Your task to perform on an android device: Clear the cart on ebay. Add usb-c to usb-b to the cart on ebay, then select checkout. Image 0: 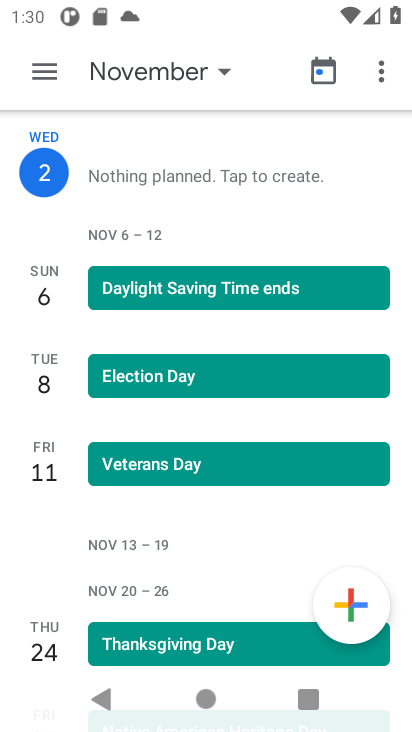
Step 0: press home button
Your task to perform on an android device: Clear the cart on ebay. Add usb-c to usb-b to the cart on ebay, then select checkout. Image 1: 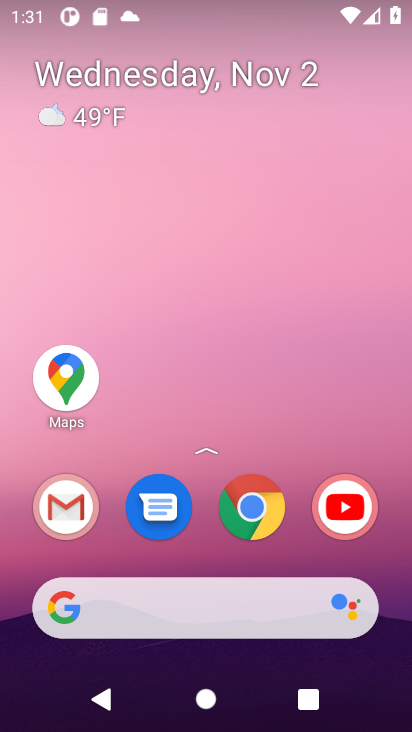
Step 1: click (112, 609)
Your task to perform on an android device: Clear the cart on ebay. Add usb-c to usb-b to the cart on ebay, then select checkout. Image 2: 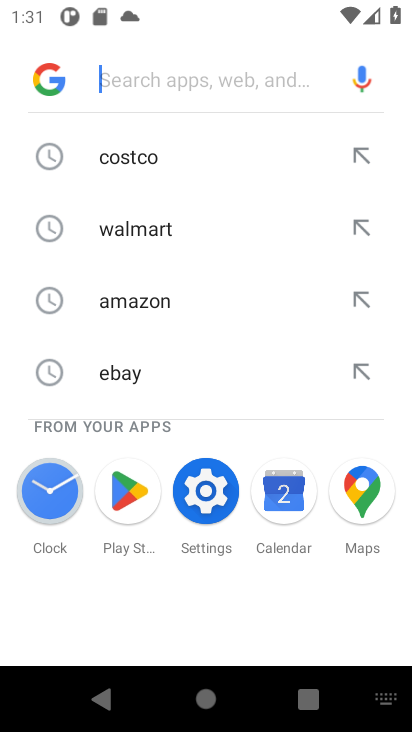
Step 2: type "ebay"
Your task to perform on an android device: Clear the cart on ebay. Add usb-c to usb-b to the cart on ebay, then select checkout. Image 3: 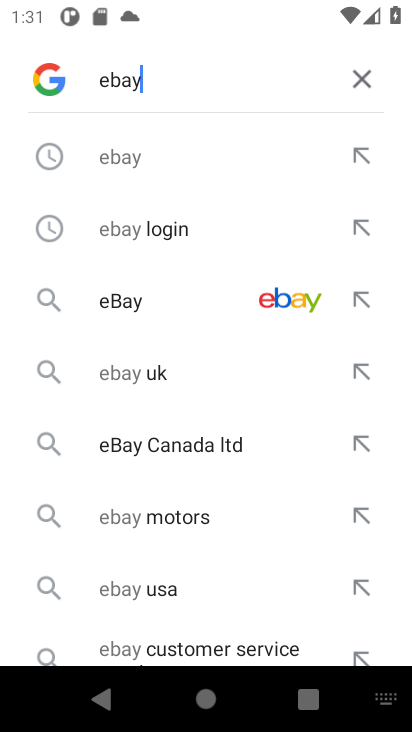
Step 3: type ""
Your task to perform on an android device: Clear the cart on ebay. Add usb-c to usb-b to the cart on ebay, then select checkout. Image 4: 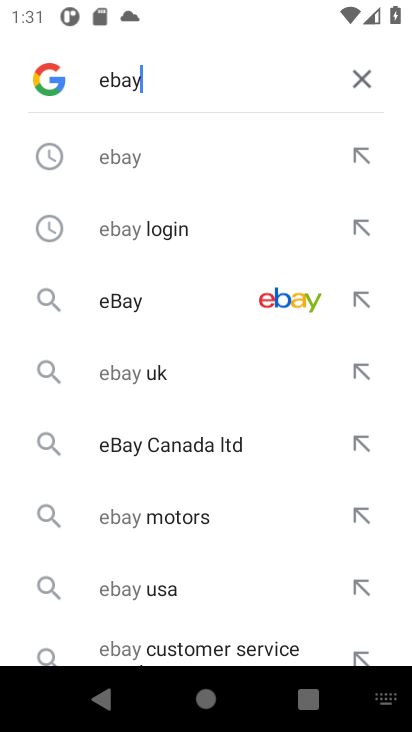
Step 4: click (167, 160)
Your task to perform on an android device: Clear the cart on ebay. Add usb-c to usb-b to the cart on ebay, then select checkout. Image 5: 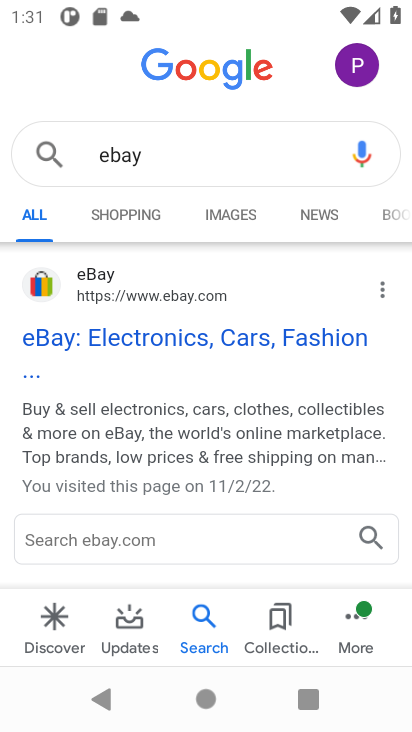
Step 5: click (138, 339)
Your task to perform on an android device: Clear the cart on ebay. Add usb-c to usb-b to the cart on ebay, then select checkout. Image 6: 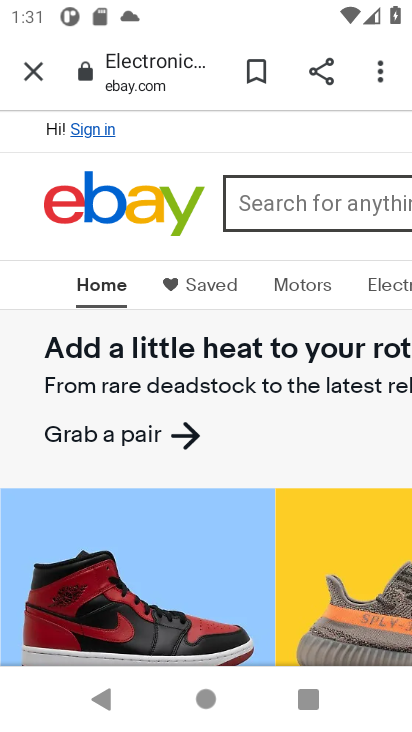
Step 6: click (345, 196)
Your task to perform on an android device: Clear the cart on ebay. Add usb-c to usb-b to the cart on ebay, then select checkout. Image 7: 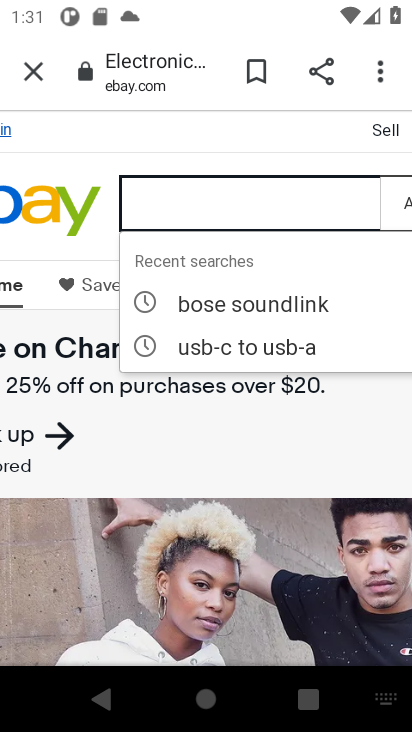
Step 7: click (109, 161)
Your task to perform on an android device: Clear the cart on ebay. Add usb-c to usb-b to the cart on ebay, then select checkout. Image 8: 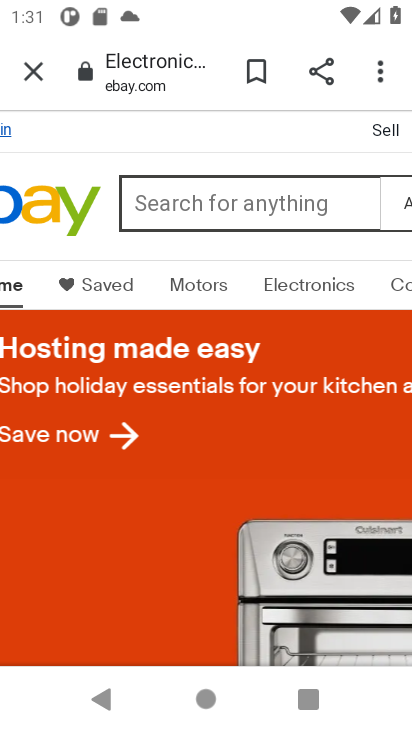
Step 8: drag from (282, 337) to (301, 628)
Your task to perform on an android device: Clear the cart on ebay. Add usb-c to usb-b to the cart on ebay, then select checkout. Image 9: 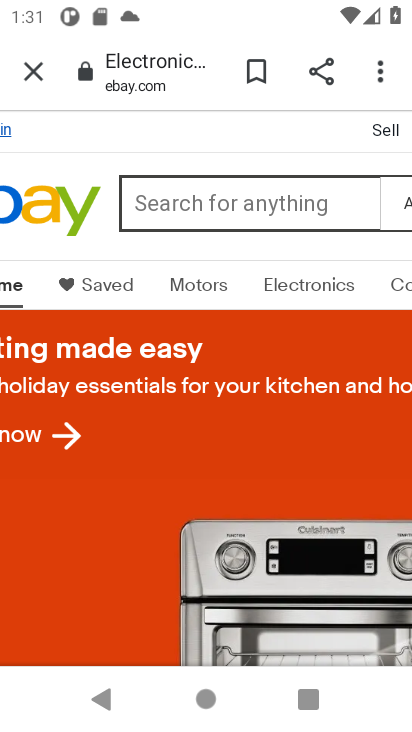
Step 9: drag from (218, 281) to (212, 538)
Your task to perform on an android device: Clear the cart on ebay. Add usb-c to usb-b to the cart on ebay, then select checkout. Image 10: 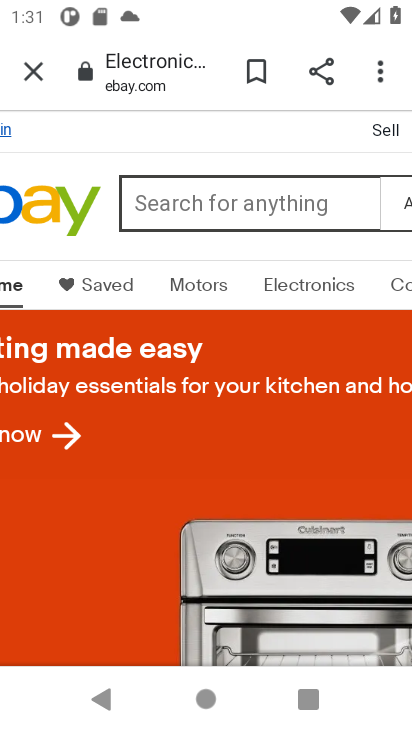
Step 10: click (197, 203)
Your task to perform on an android device: Clear the cart on ebay. Add usb-c to usb-b to the cart on ebay, then select checkout. Image 11: 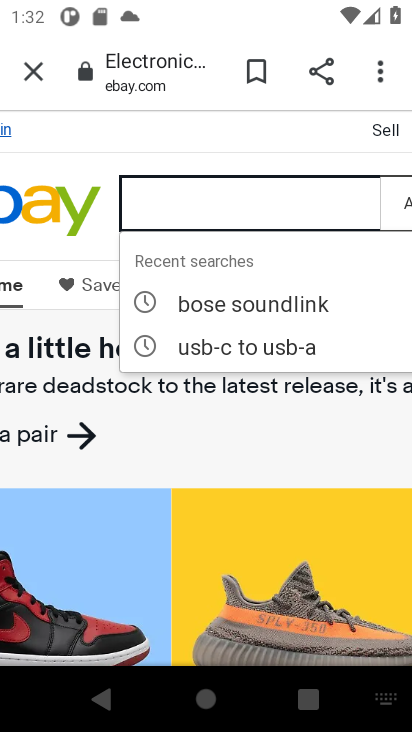
Step 11: type "usb-c to usb-b"
Your task to perform on an android device: Clear the cart on ebay. Add usb-c to usb-b to the cart on ebay, then select checkout. Image 12: 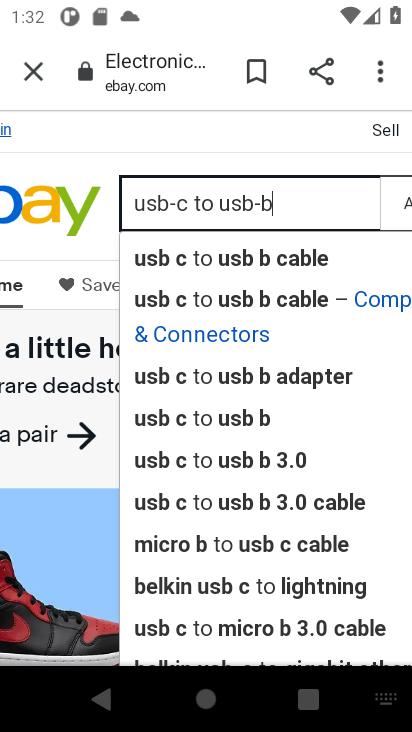
Step 12: type ""
Your task to perform on an android device: Clear the cart on ebay. Add usb-c to usb-b to the cart on ebay, then select checkout. Image 13: 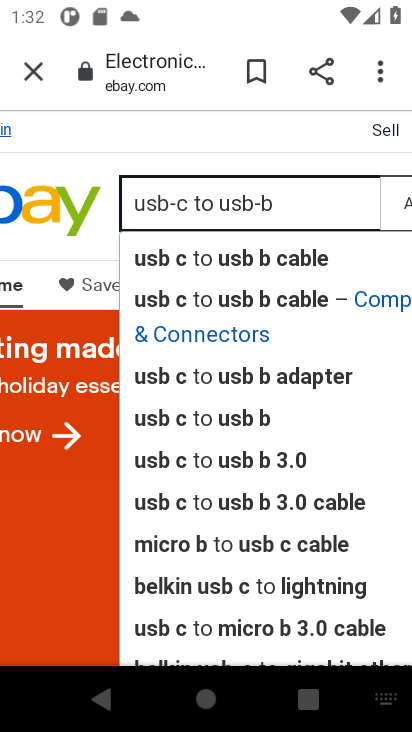
Step 13: click (268, 425)
Your task to perform on an android device: Clear the cart on ebay. Add usb-c to usb-b to the cart on ebay, then select checkout. Image 14: 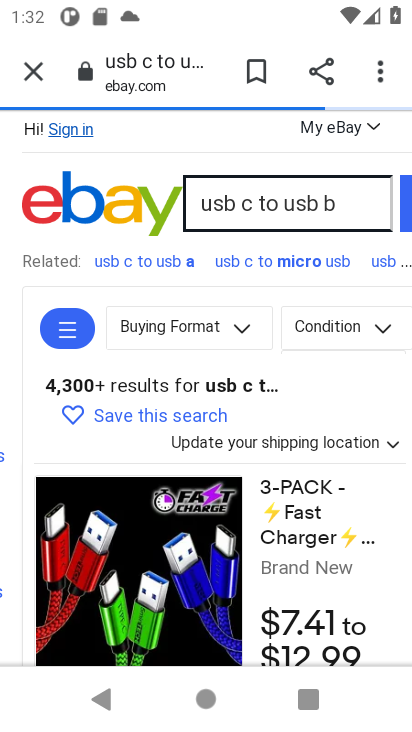
Step 14: click (329, 587)
Your task to perform on an android device: Clear the cart on ebay. Add usb-c to usb-b to the cart on ebay, then select checkout. Image 15: 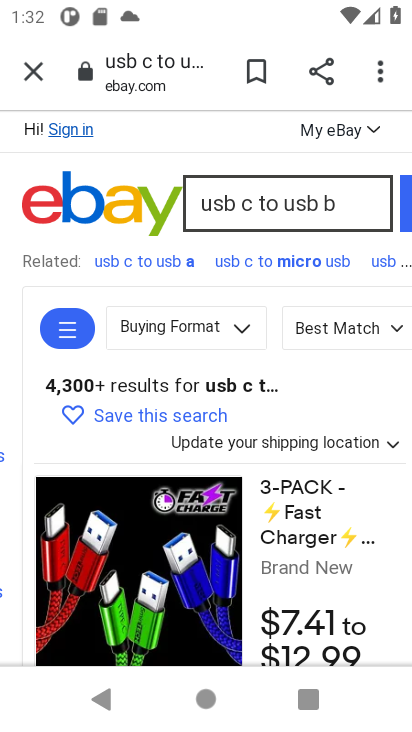
Step 15: drag from (290, 558) to (275, 303)
Your task to perform on an android device: Clear the cart on ebay. Add usb-c to usb-b to the cart on ebay, then select checkout. Image 16: 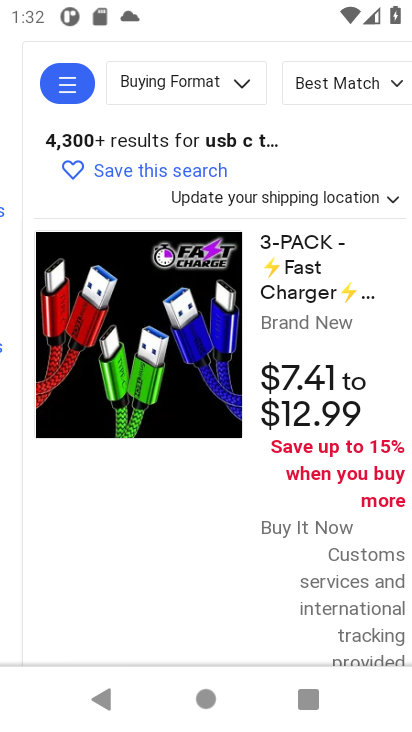
Step 16: click (289, 298)
Your task to perform on an android device: Clear the cart on ebay. Add usb-c to usb-b to the cart on ebay, then select checkout. Image 17: 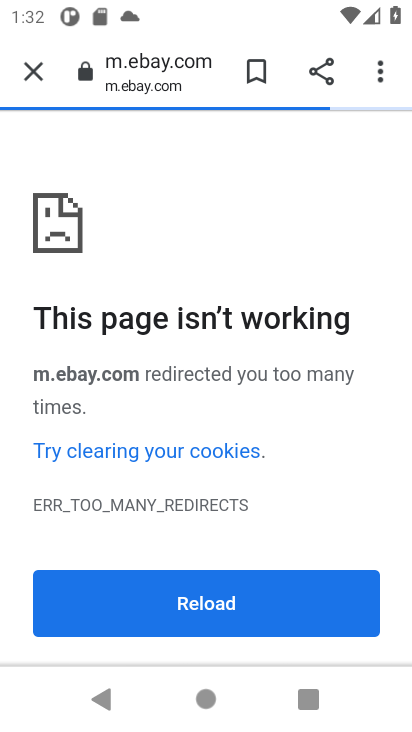
Step 17: task complete